Your task to perform on an android device: clear all cookies in the chrome app Image 0: 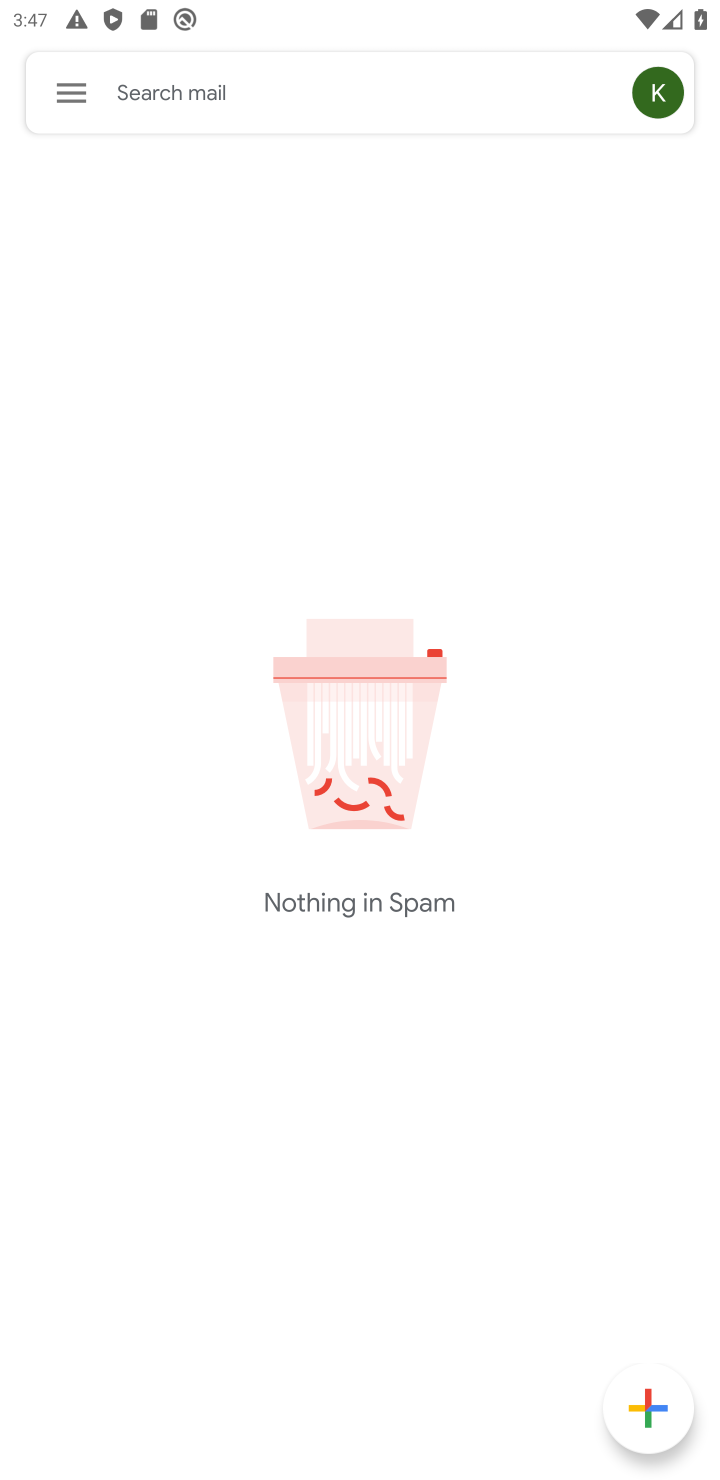
Step 0: press home button
Your task to perform on an android device: clear all cookies in the chrome app Image 1: 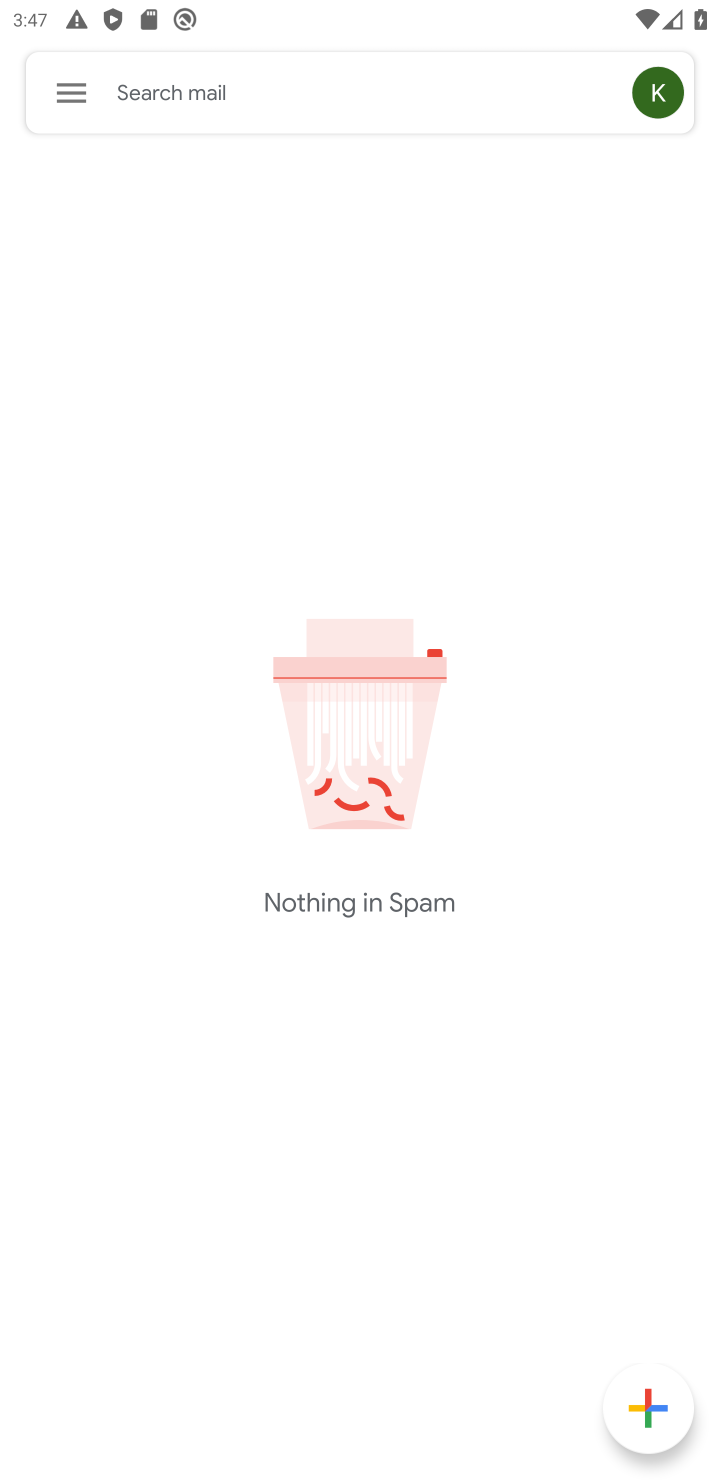
Step 1: press home button
Your task to perform on an android device: clear all cookies in the chrome app Image 2: 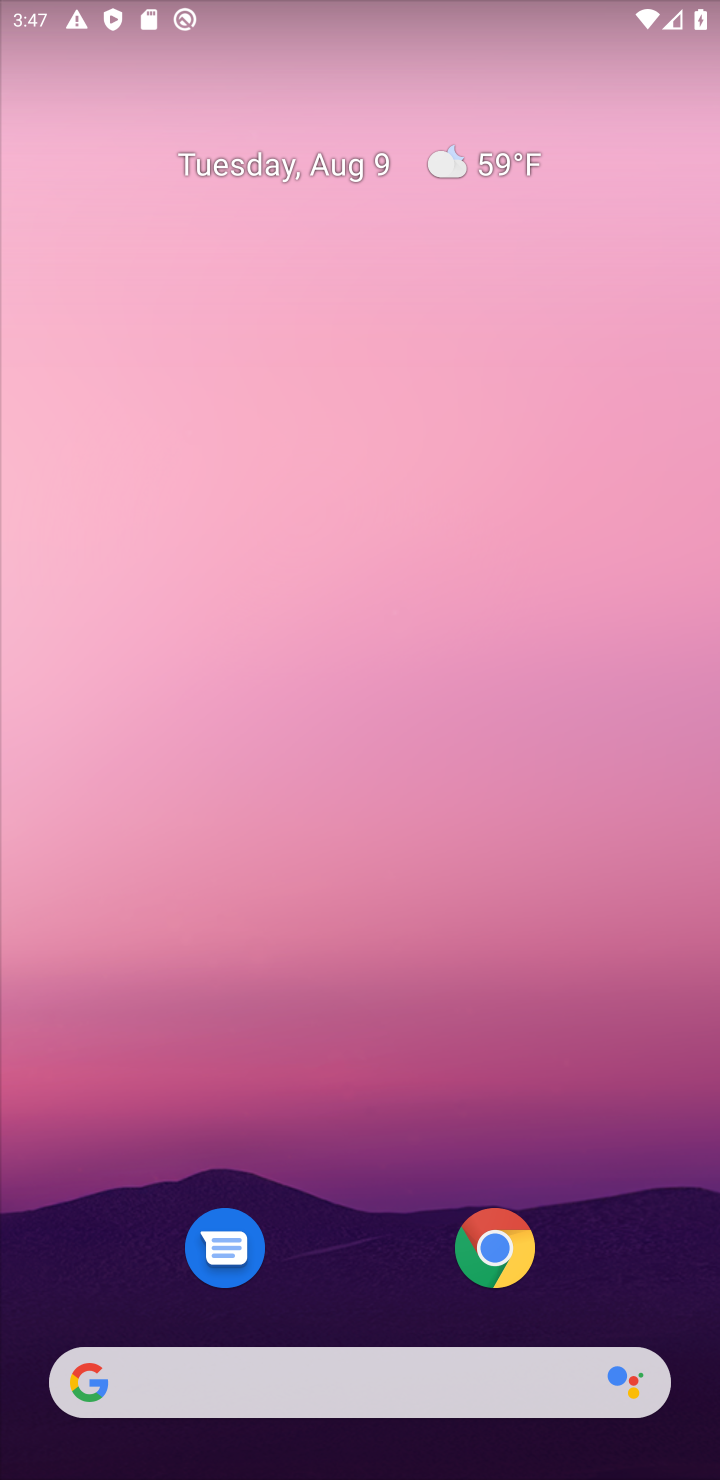
Step 2: drag from (349, 1137) to (158, 44)
Your task to perform on an android device: clear all cookies in the chrome app Image 3: 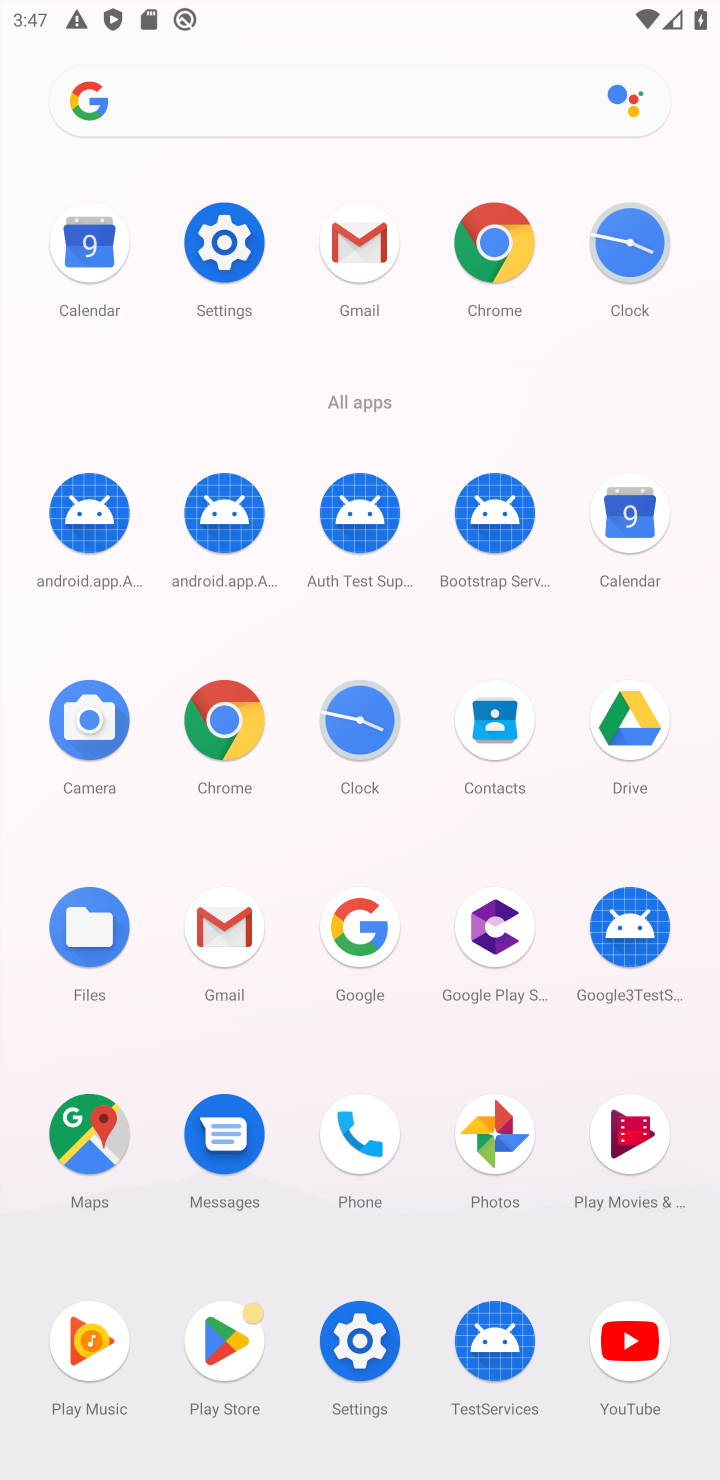
Step 3: click (216, 717)
Your task to perform on an android device: clear all cookies in the chrome app Image 4: 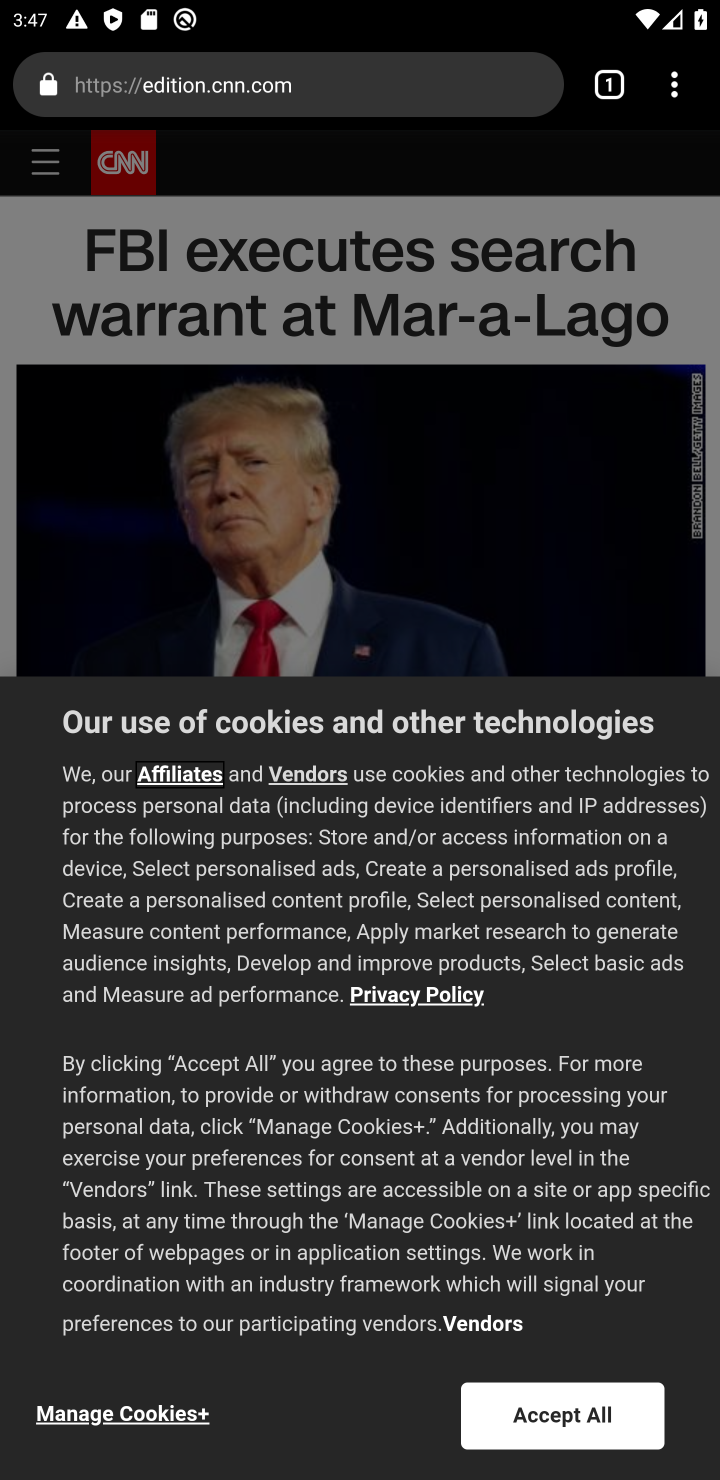
Step 4: drag from (679, 96) to (377, 570)
Your task to perform on an android device: clear all cookies in the chrome app Image 5: 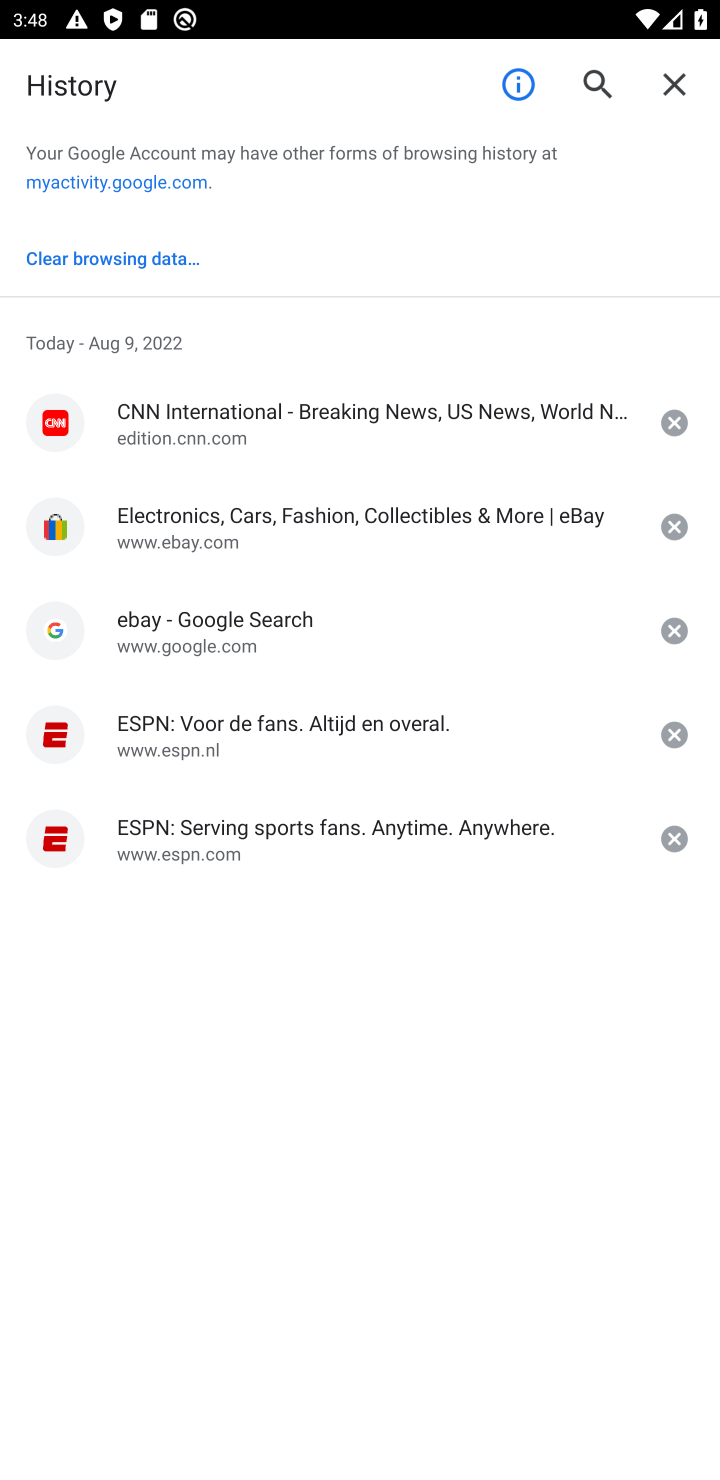
Step 5: click (147, 260)
Your task to perform on an android device: clear all cookies in the chrome app Image 6: 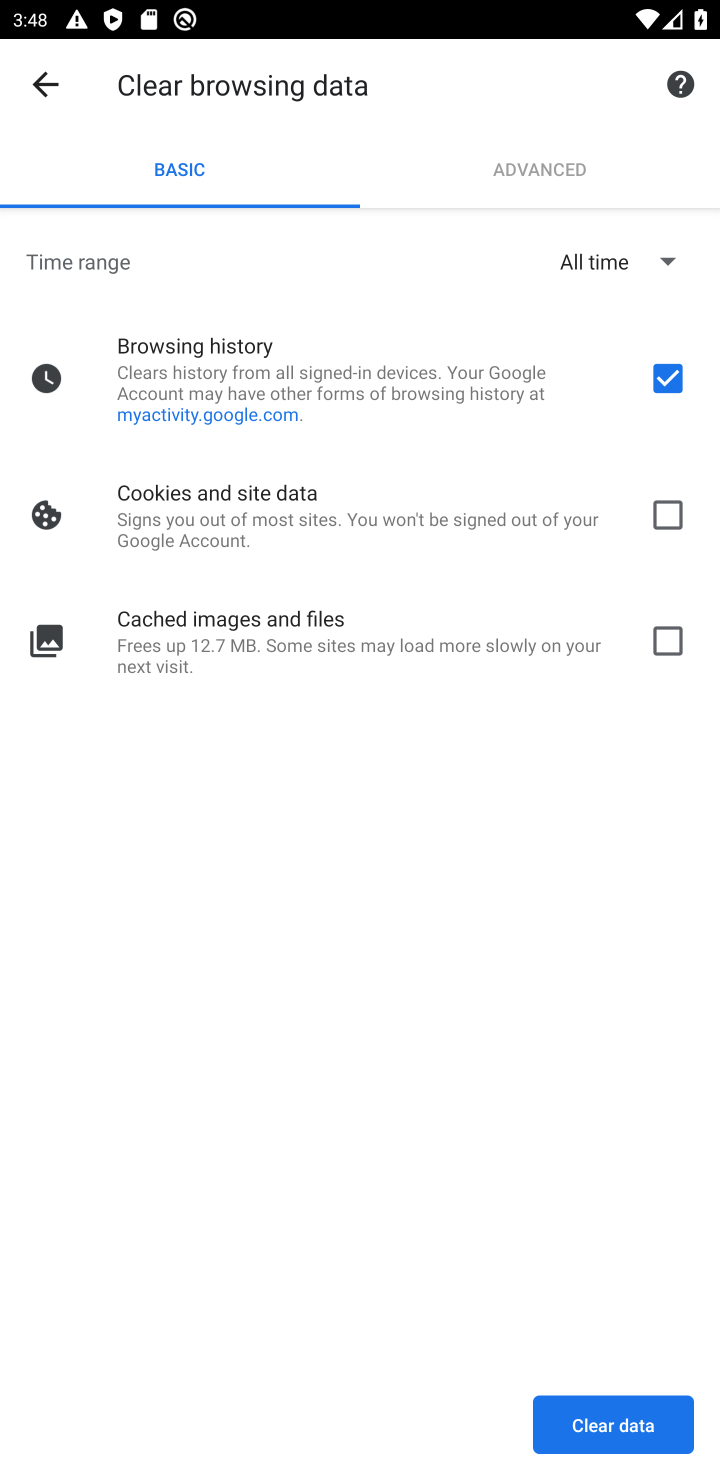
Step 6: click (663, 515)
Your task to perform on an android device: clear all cookies in the chrome app Image 7: 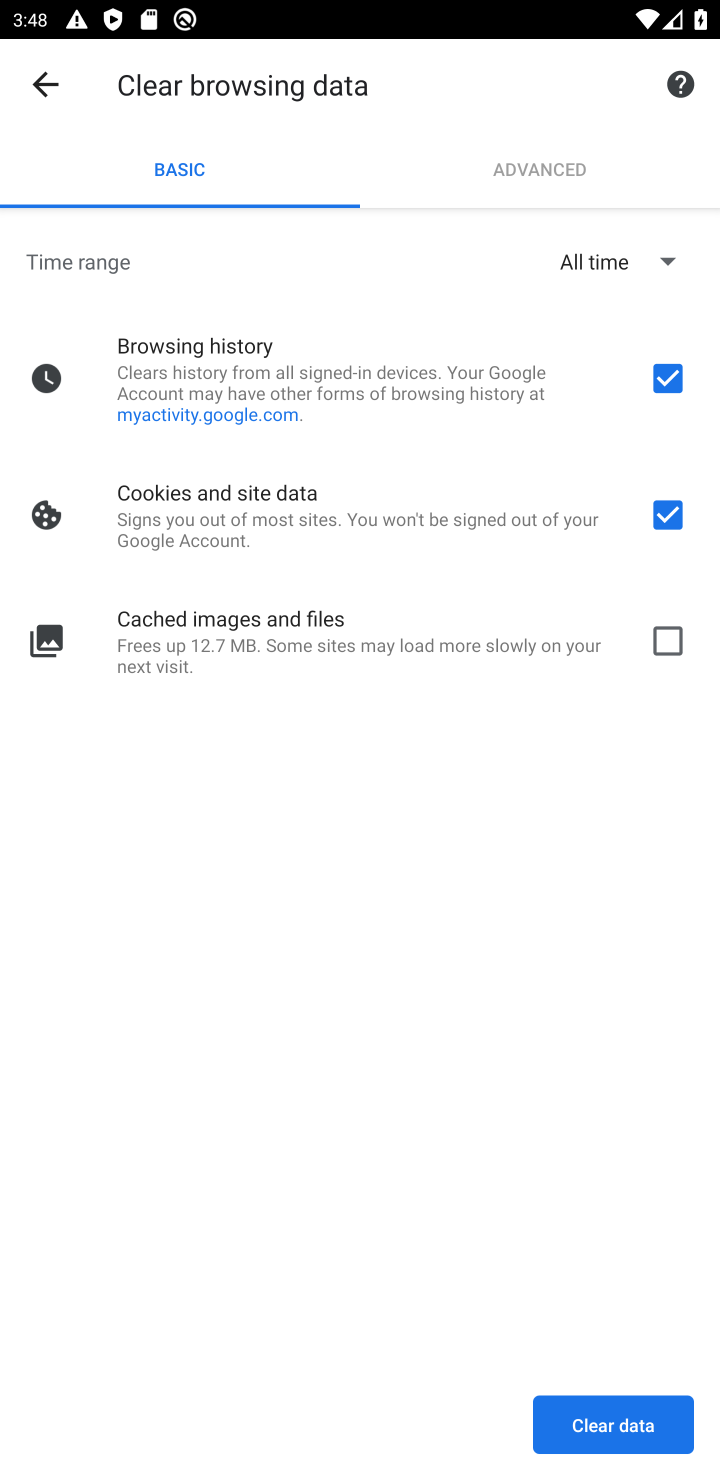
Step 7: click (663, 1417)
Your task to perform on an android device: clear all cookies in the chrome app Image 8: 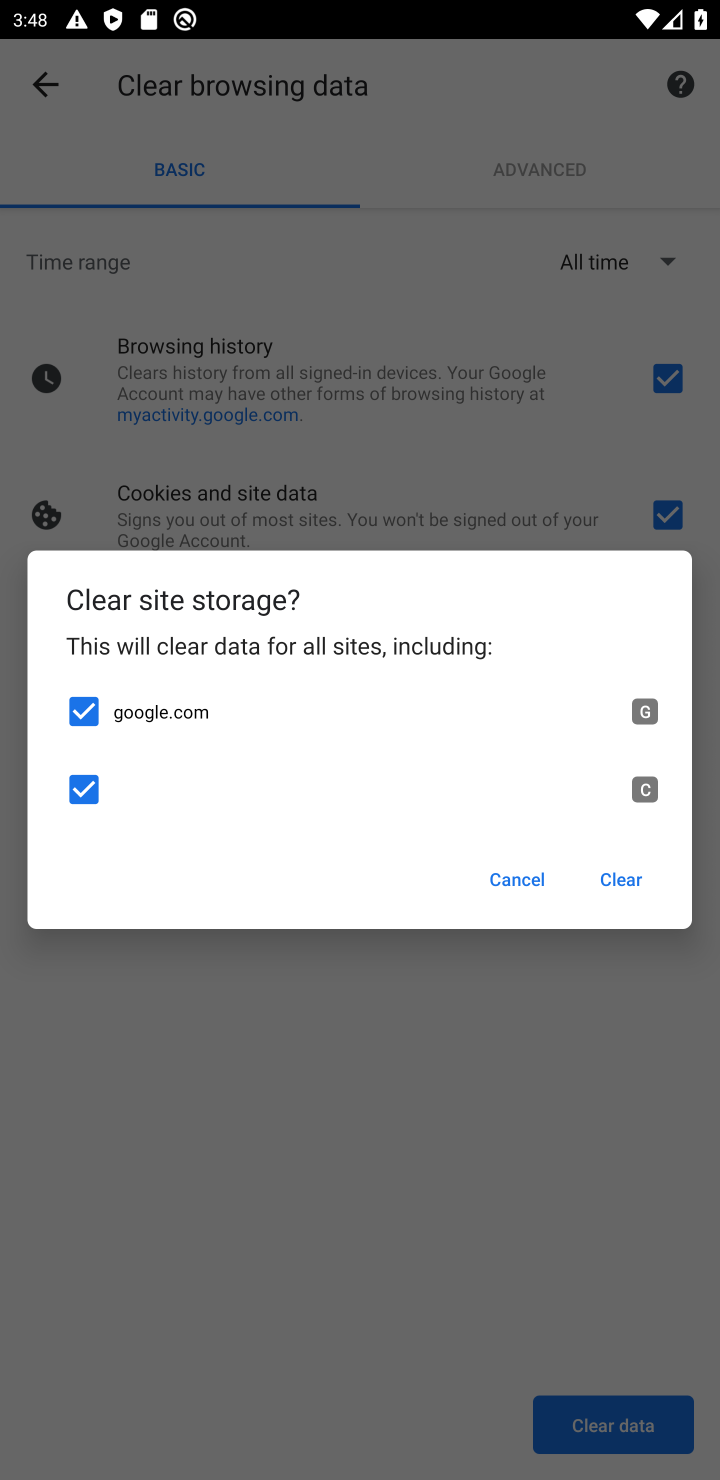
Step 8: click (622, 882)
Your task to perform on an android device: clear all cookies in the chrome app Image 9: 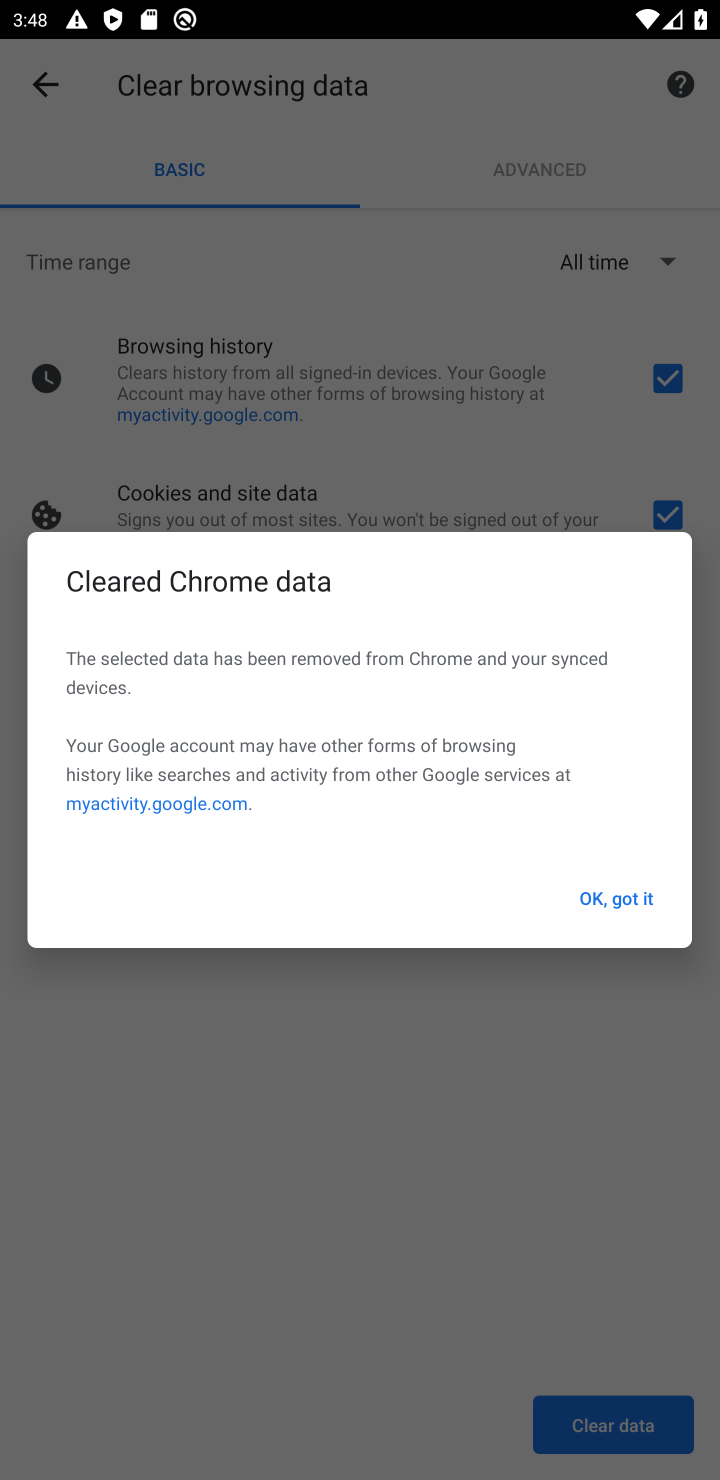
Step 9: task complete